Your task to perform on an android device: all mails in gmail Image 0: 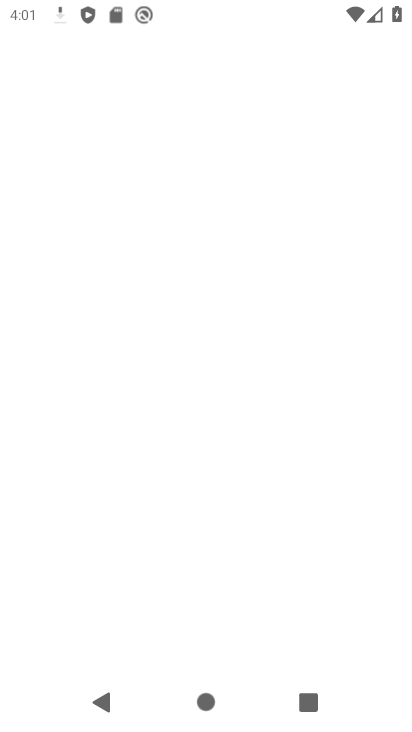
Step 0: press home button
Your task to perform on an android device: all mails in gmail Image 1: 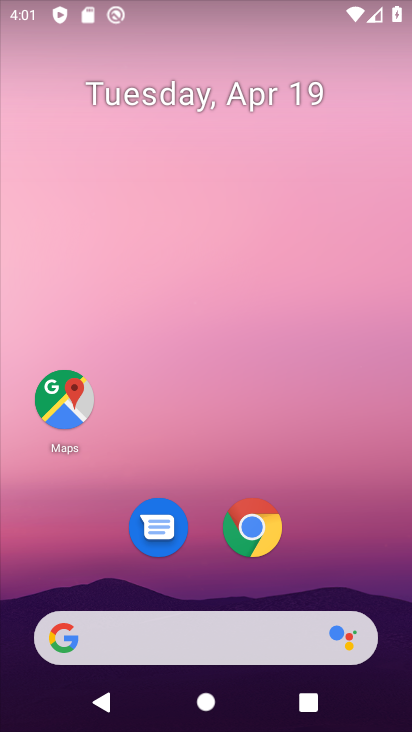
Step 1: drag from (198, 497) to (231, 243)
Your task to perform on an android device: all mails in gmail Image 2: 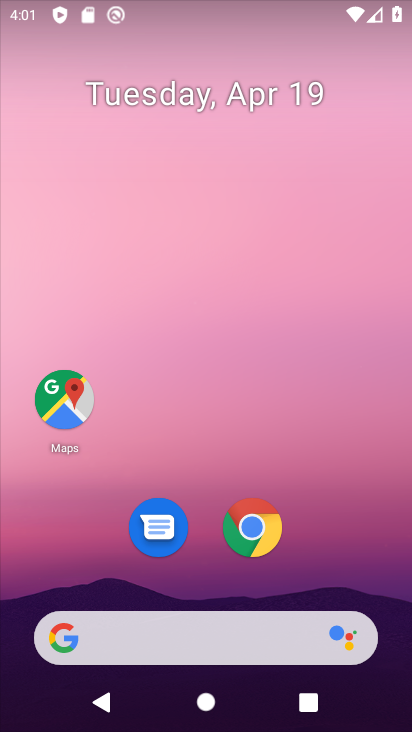
Step 2: drag from (177, 593) to (313, 94)
Your task to perform on an android device: all mails in gmail Image 3: 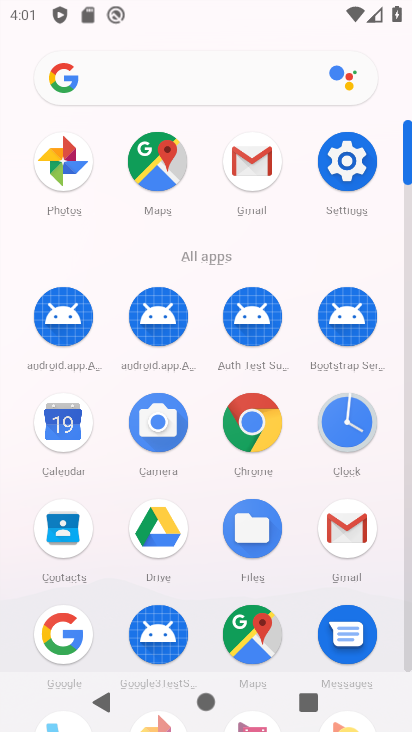
Step 3: click (257, 264)
Your task to perform on an android device: all mails in gmail Image 4: 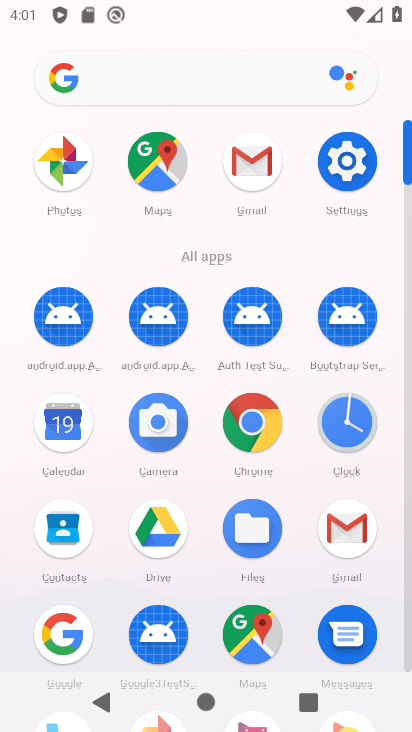
Step 4: click (257, 178)
Your task to perform on an android device: all mails in gmail Image 5: 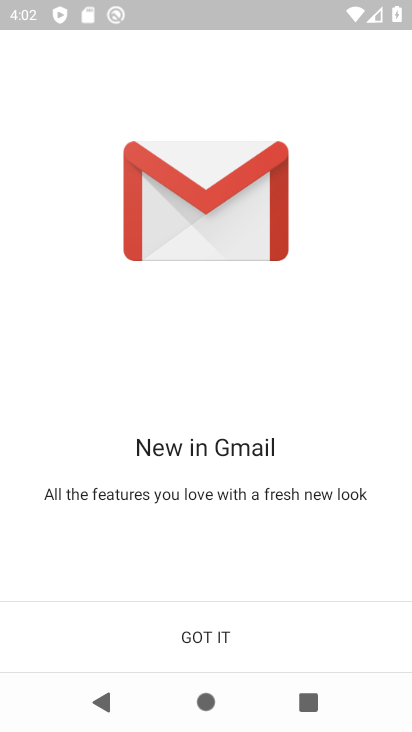
Step 5: click (229, 644)
Your task to perform on an android device: all mails in gmail Image 6: 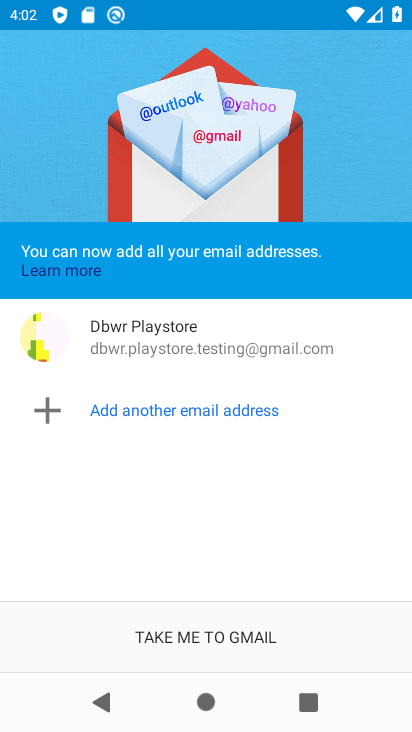
Step 6: click (158, 634)
Your task to perform on an android device: all mails in gmail Image 7: 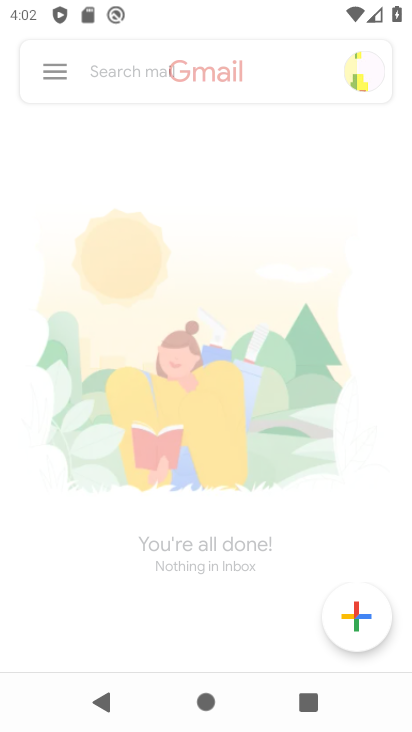
Step 7: click (49, 65)
Your task to perform on an android device: all mails in gmail Image 8: 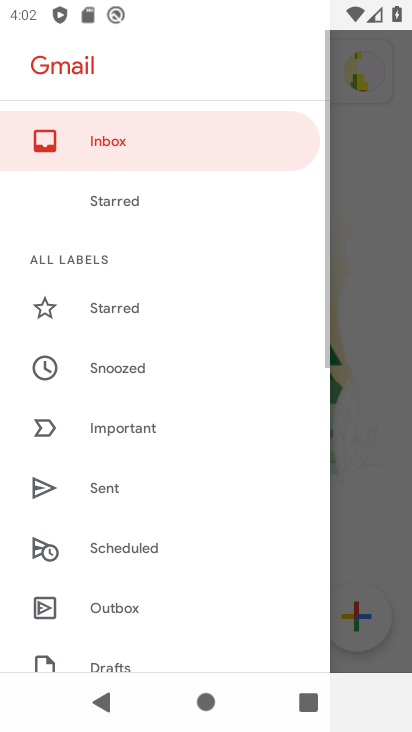
Step 8: drag from (162, 480) to (247, 169)
Your task to perform on an android device: all mails in gmail Image 9: 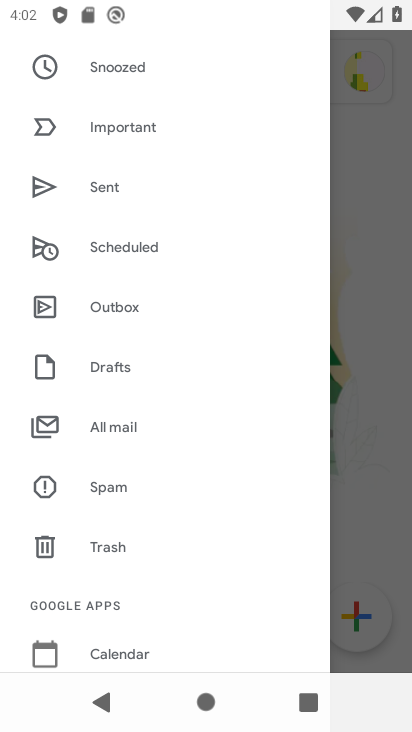
Step 9: drag from (172, 475) to (237, 221)
Your task to perform on an android device: all mails in gmail Image 10: 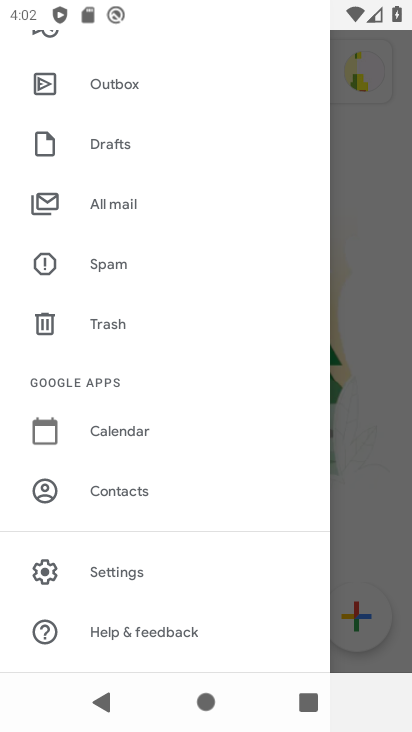
Step 10: click (118, 201)
Your task to perform on an android device: all mails in gmail Image 11: 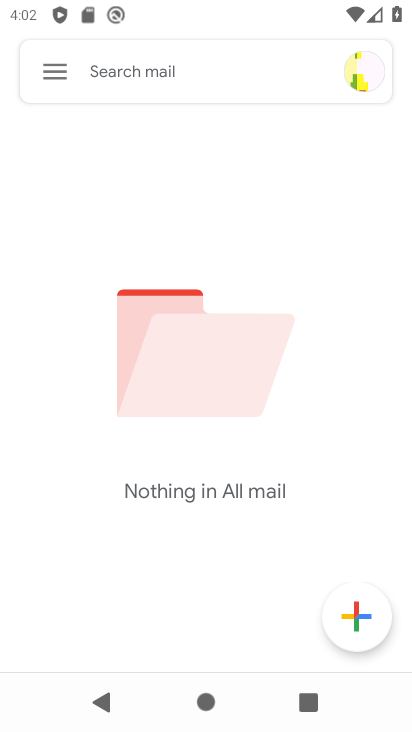
Step 11: task complete